Your task to perform on an android device: What's on my calendar tomorrow? Image 0: 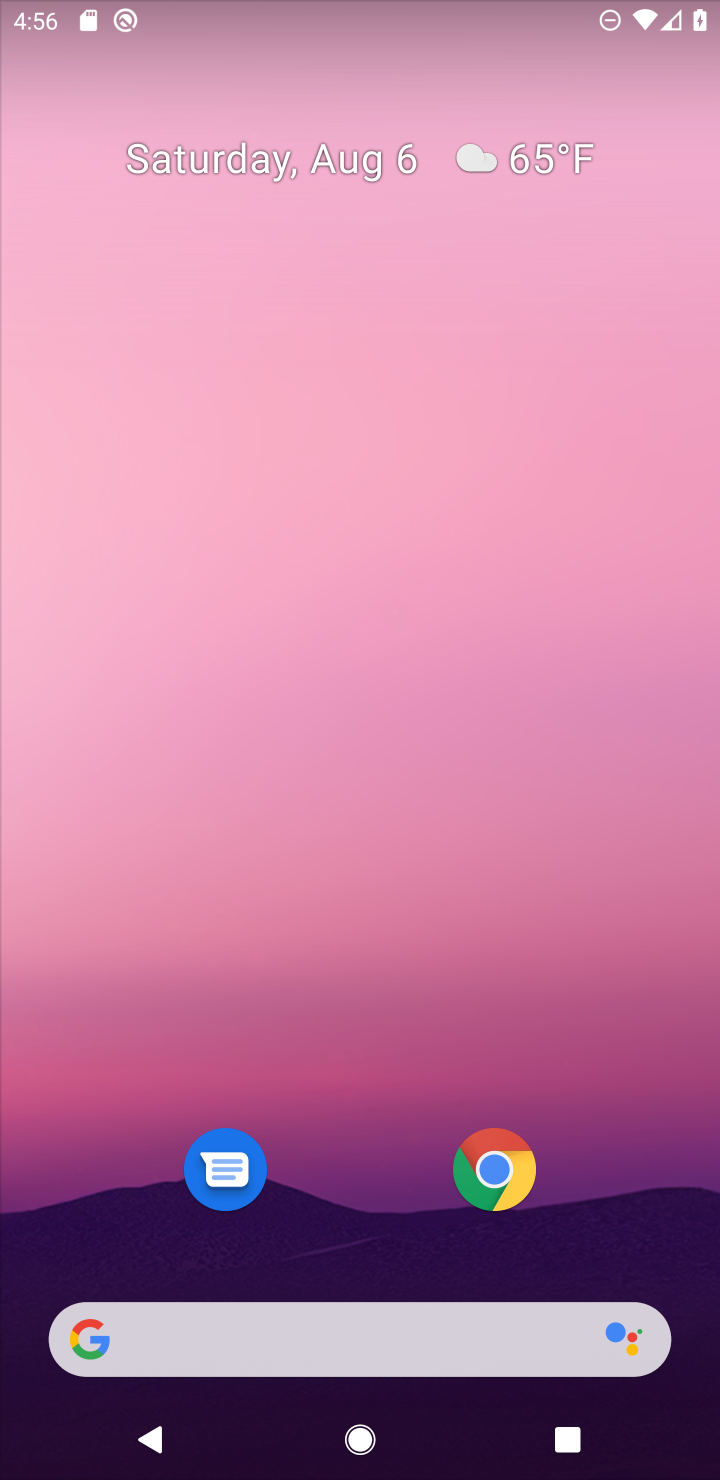
Step 0: drag from (262, 69) to (311, 4)
Your task to perform on an android device: What's on my calendar tomorrow? Image 1: 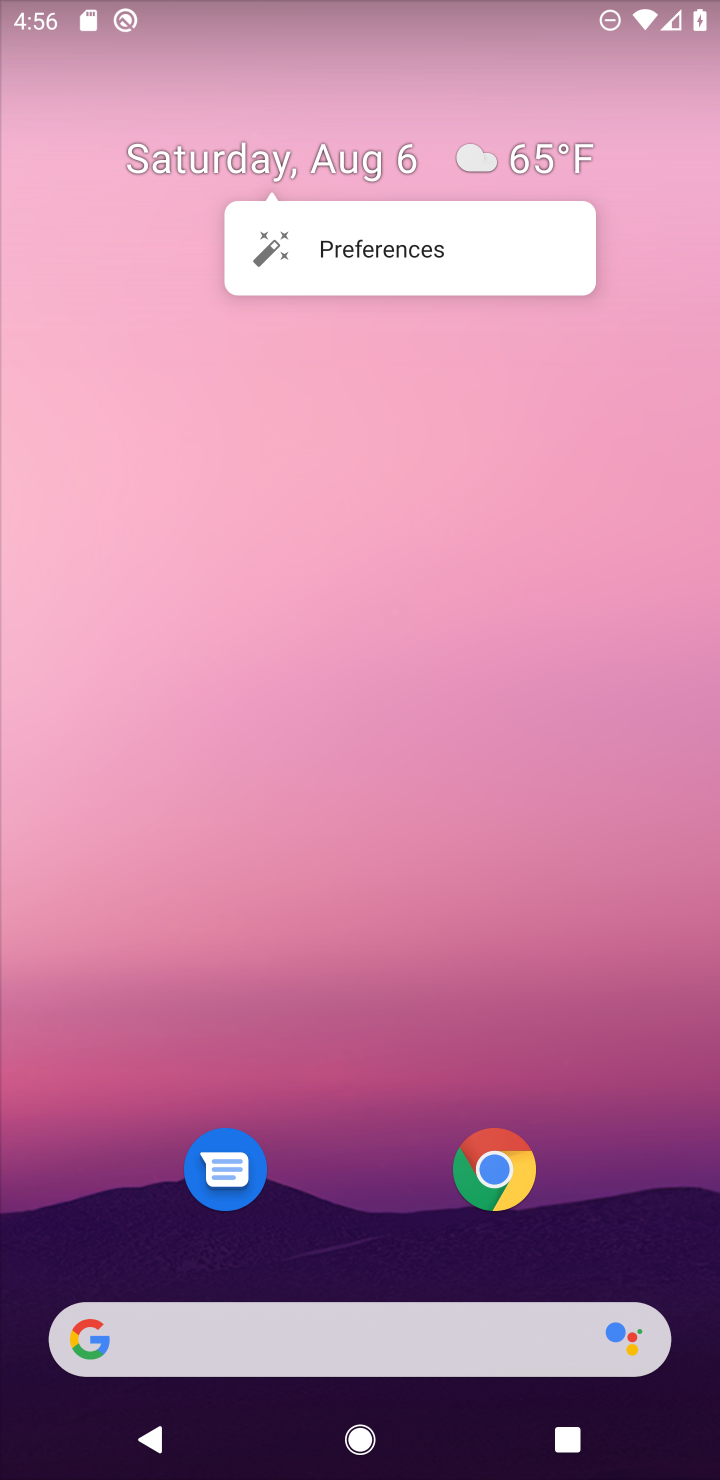
Step 1: click (303, 504)
Your task to perform on an android device: What's on my calendar tomorrow? Image 2: 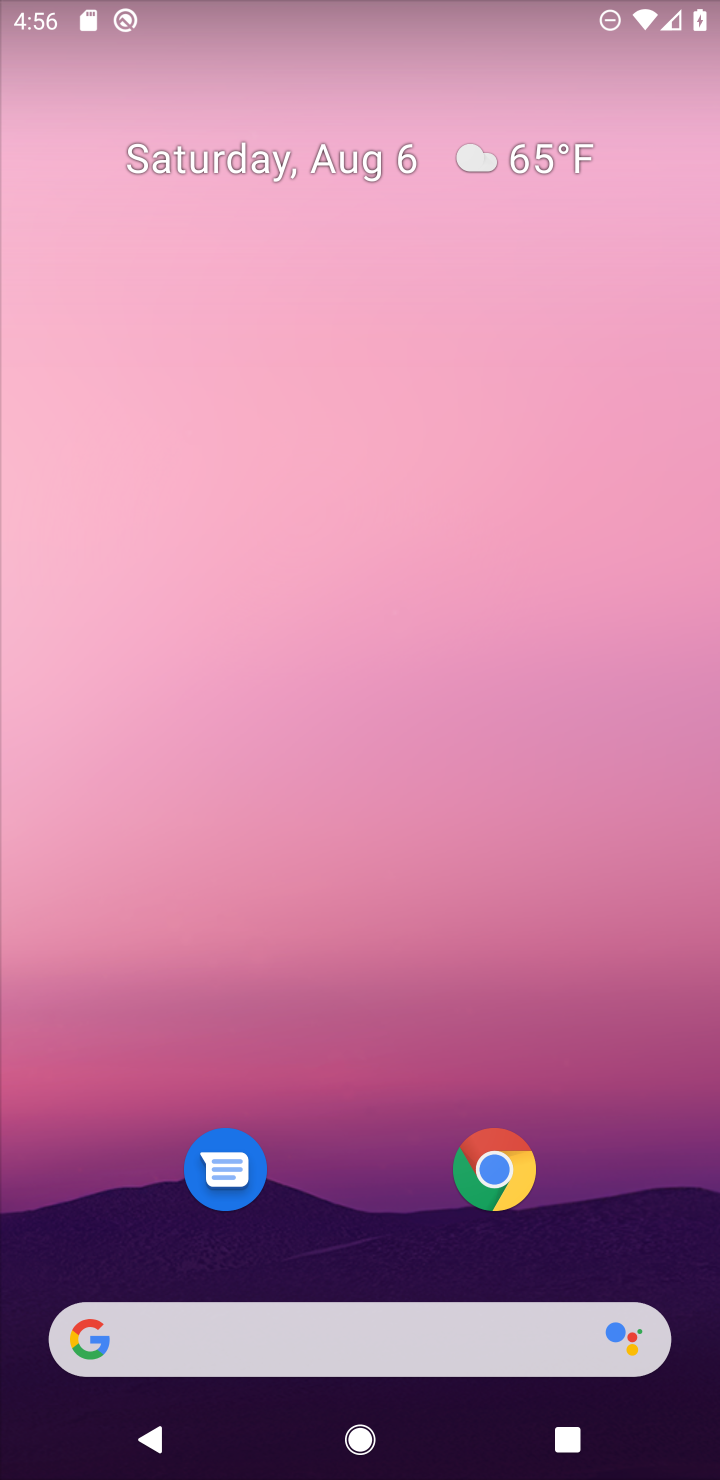
Step 2: click (406, 303)
Your task to perform on an android device: What's on my calendar tomorrow? Image 3: 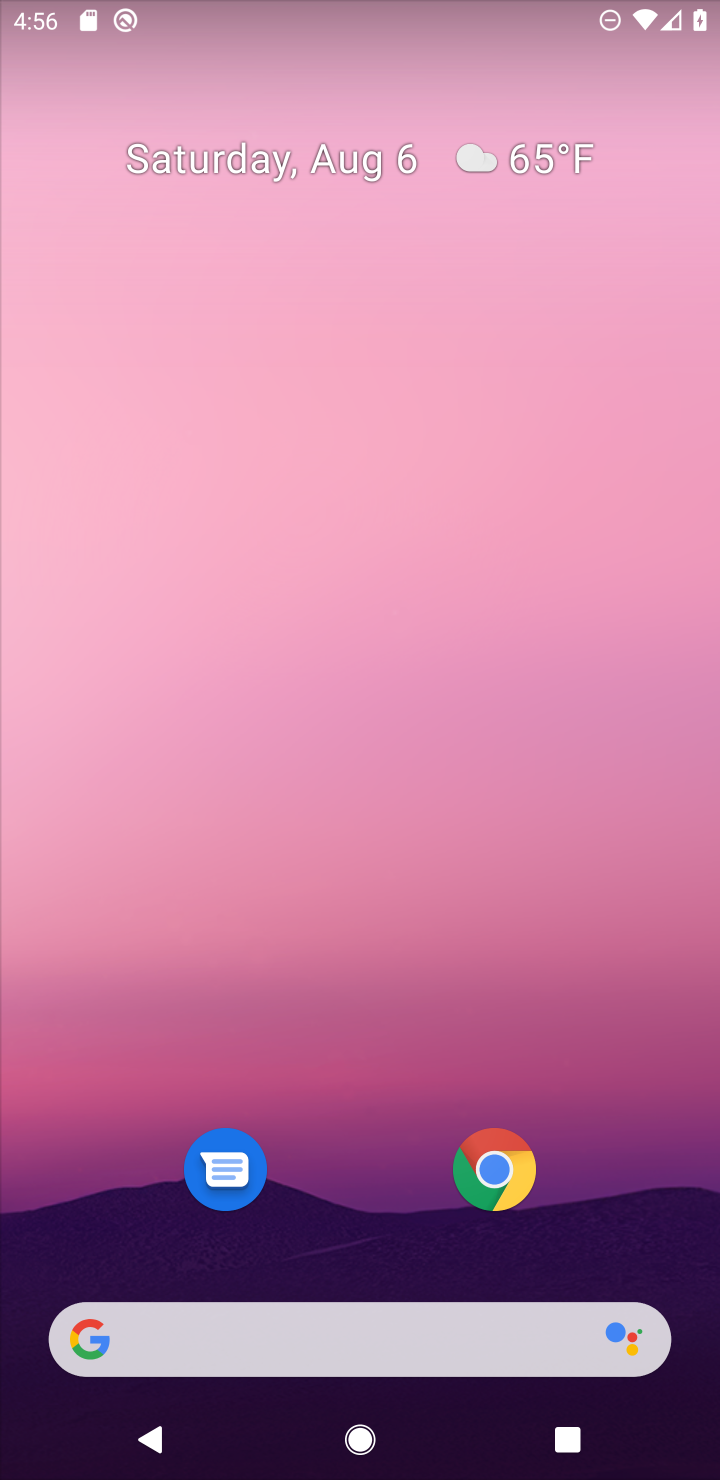
Step 3: click (344, 65)
Your task to perform on an android device: What's on my calendar tomorrow? Image 4: 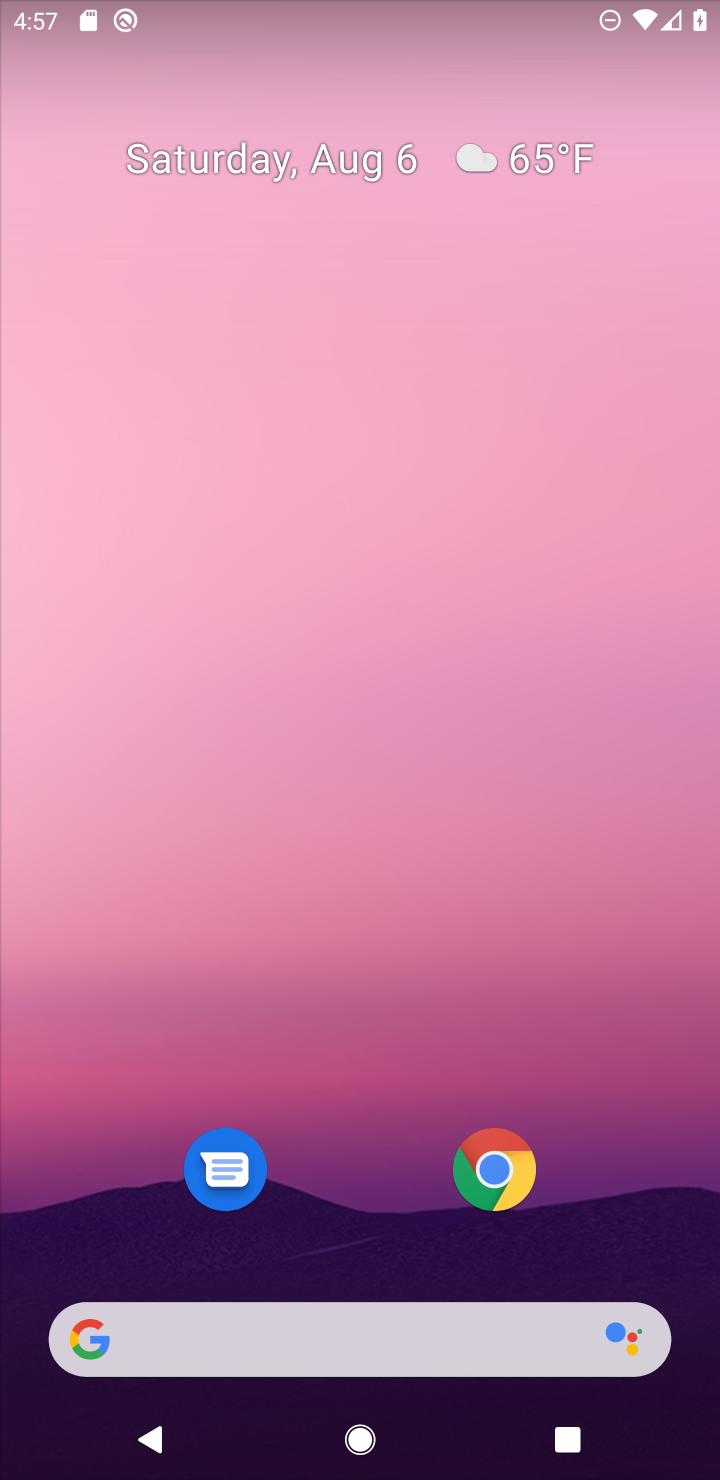
Step 4: click (339, 1010)
Your task to perform on an android device: What's on my calendar tomorrow? Image 5: 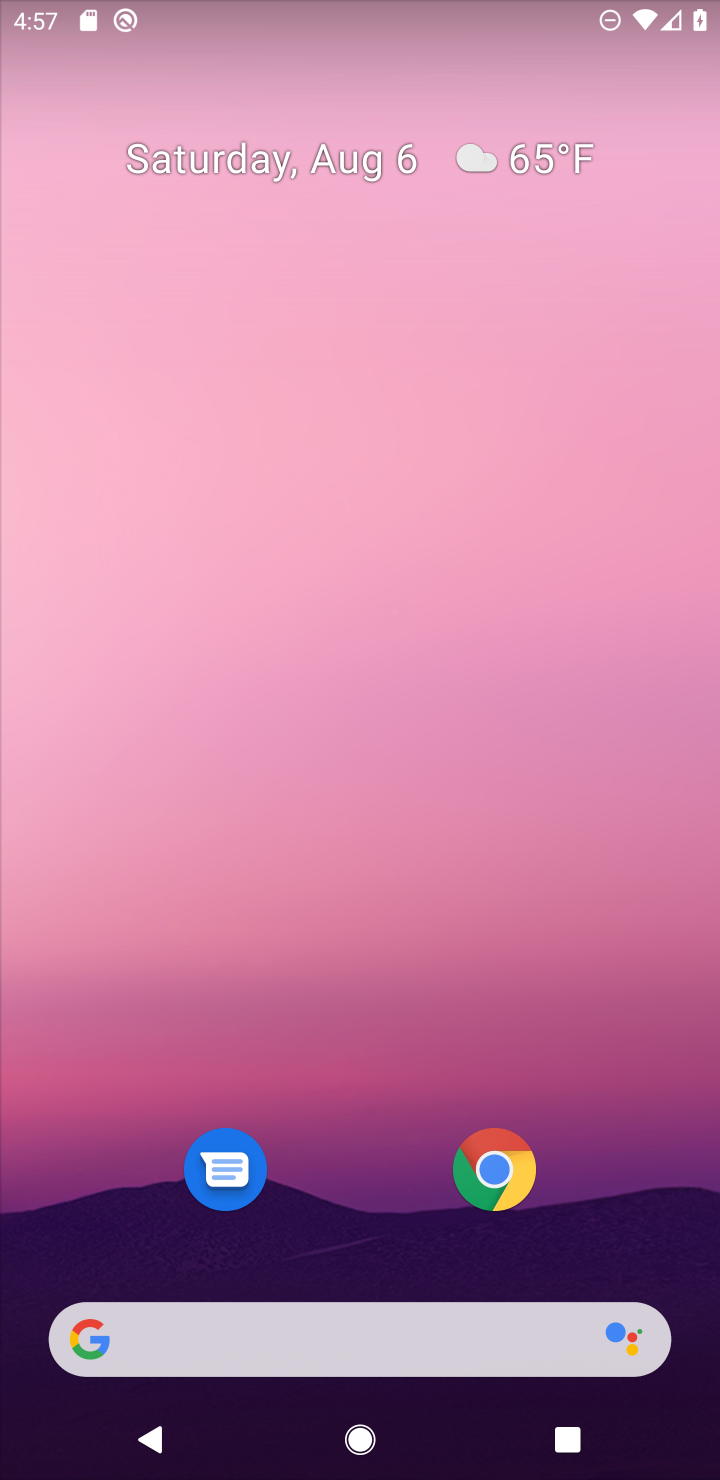
Step 5: drag from (265, 149) to (265, 40)
Your task to perform on an android device: What's on my calendar tomorrow? Image 6: 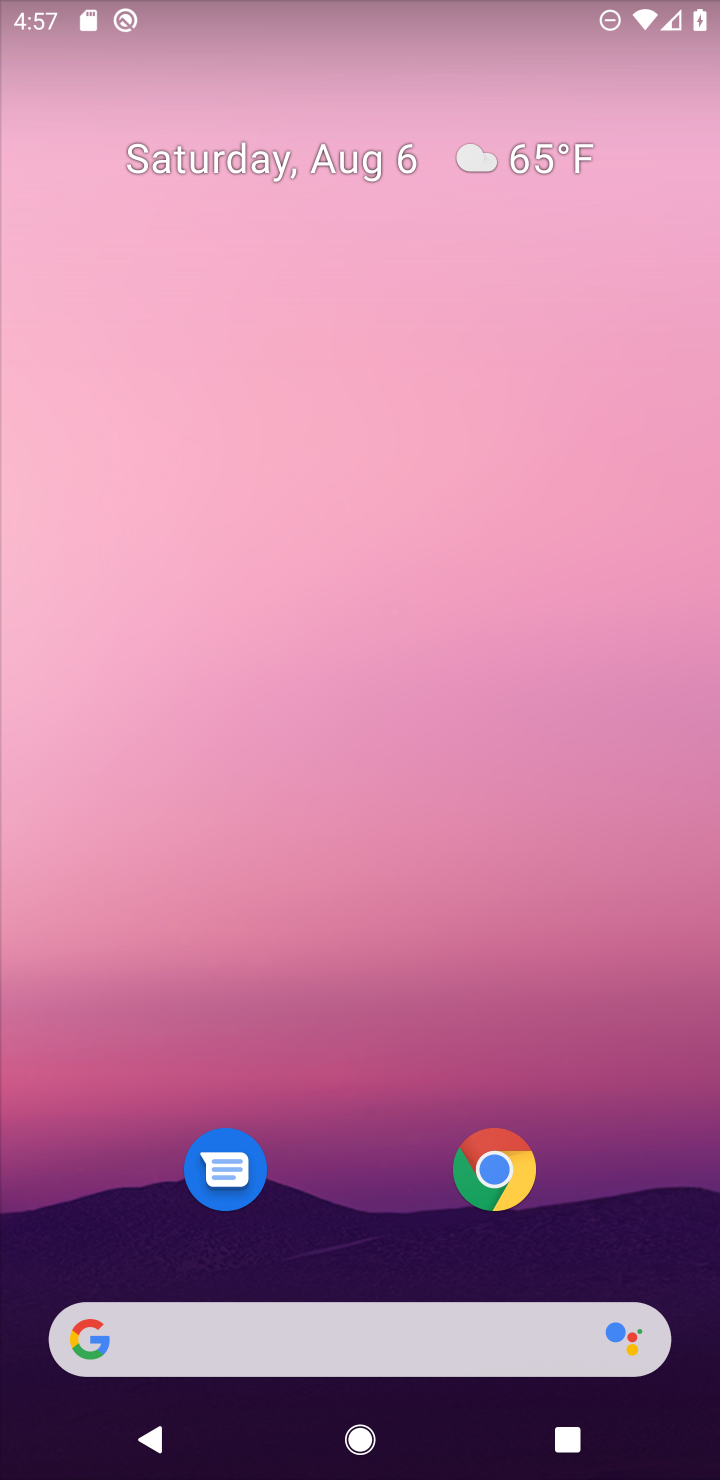
Step 6: drag from (321, 671) to (320, 509)
Your task to perform on an android device: What's on my calendar tomorrow? Image 7: 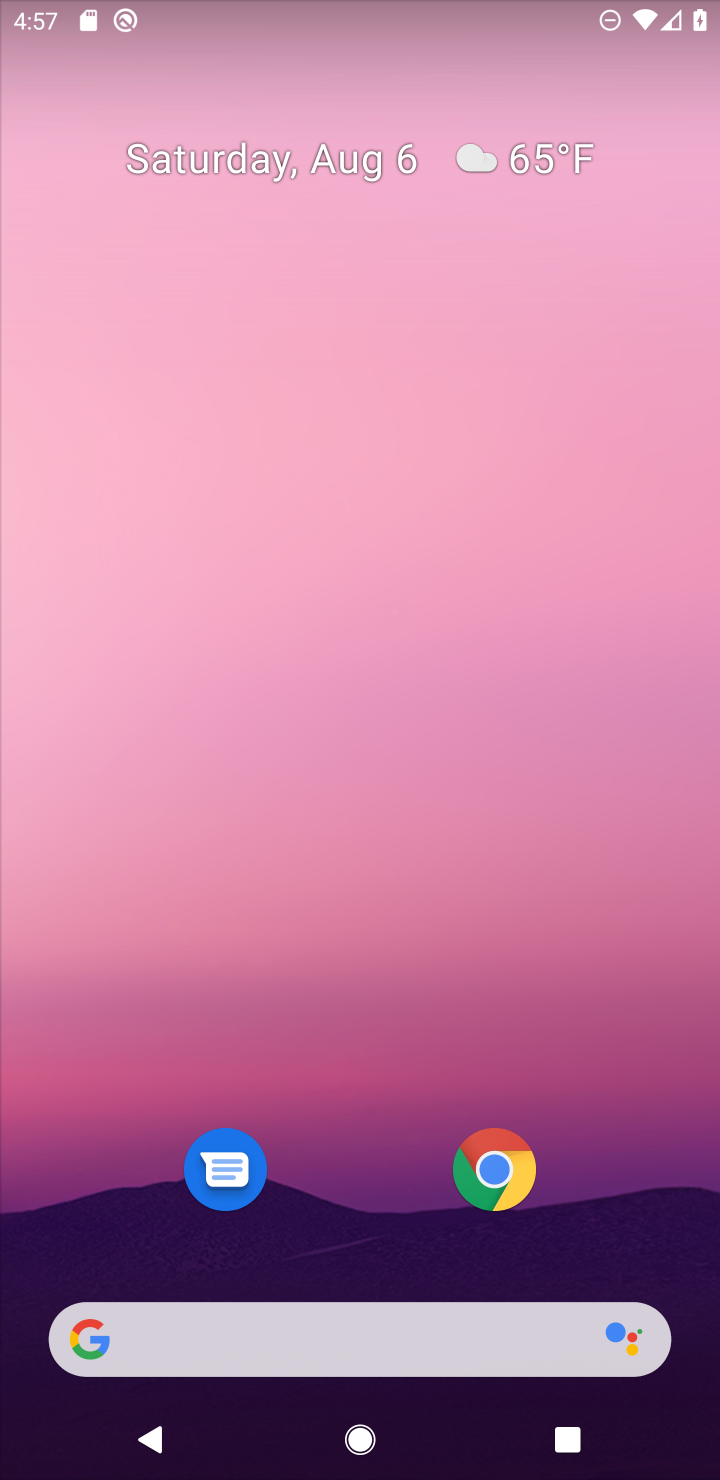
Step 7: drag from (374, 1238) to (346, 351)
Your task to perform on an android device: What's on my calendar tomorrow? Image 8: 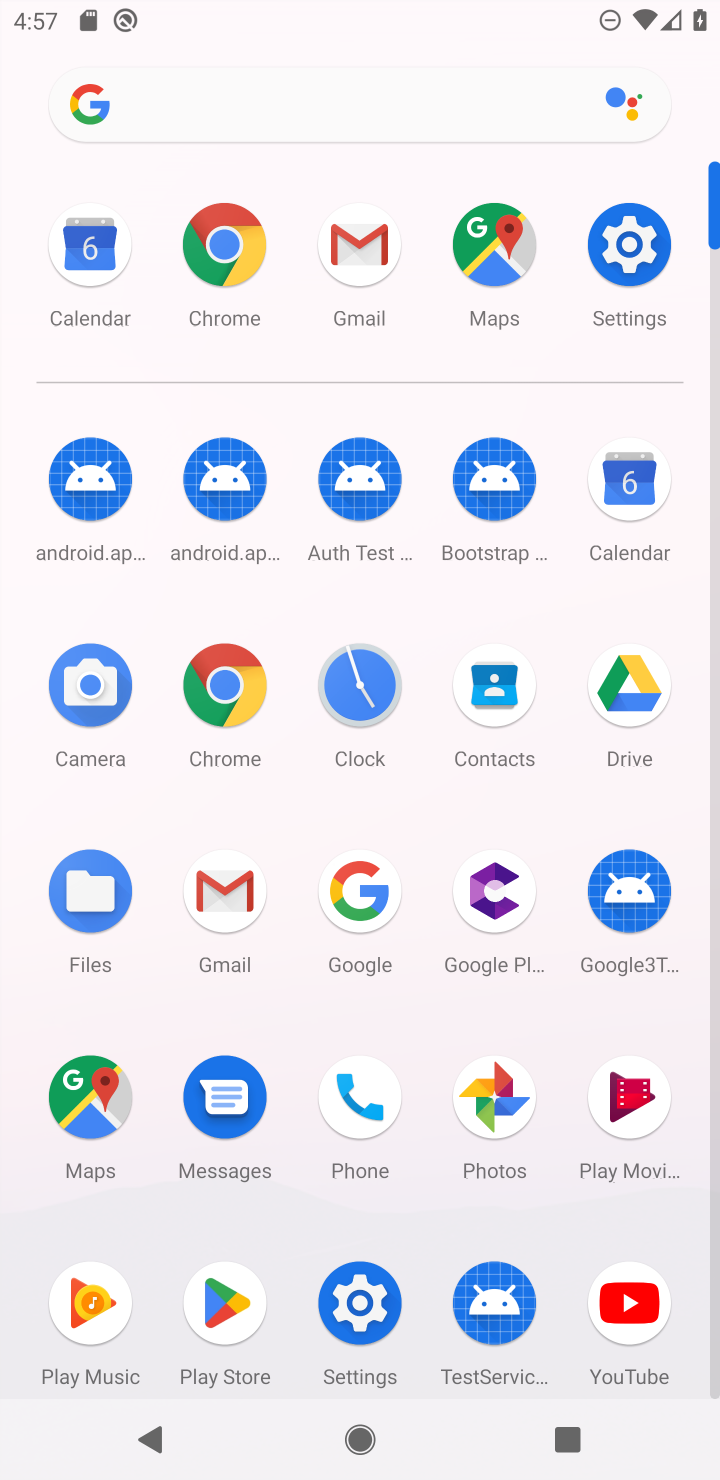
Step 8: click (63, 256)
Your task to perform on an android device: What's on my calendar tomorrow? Image 9: 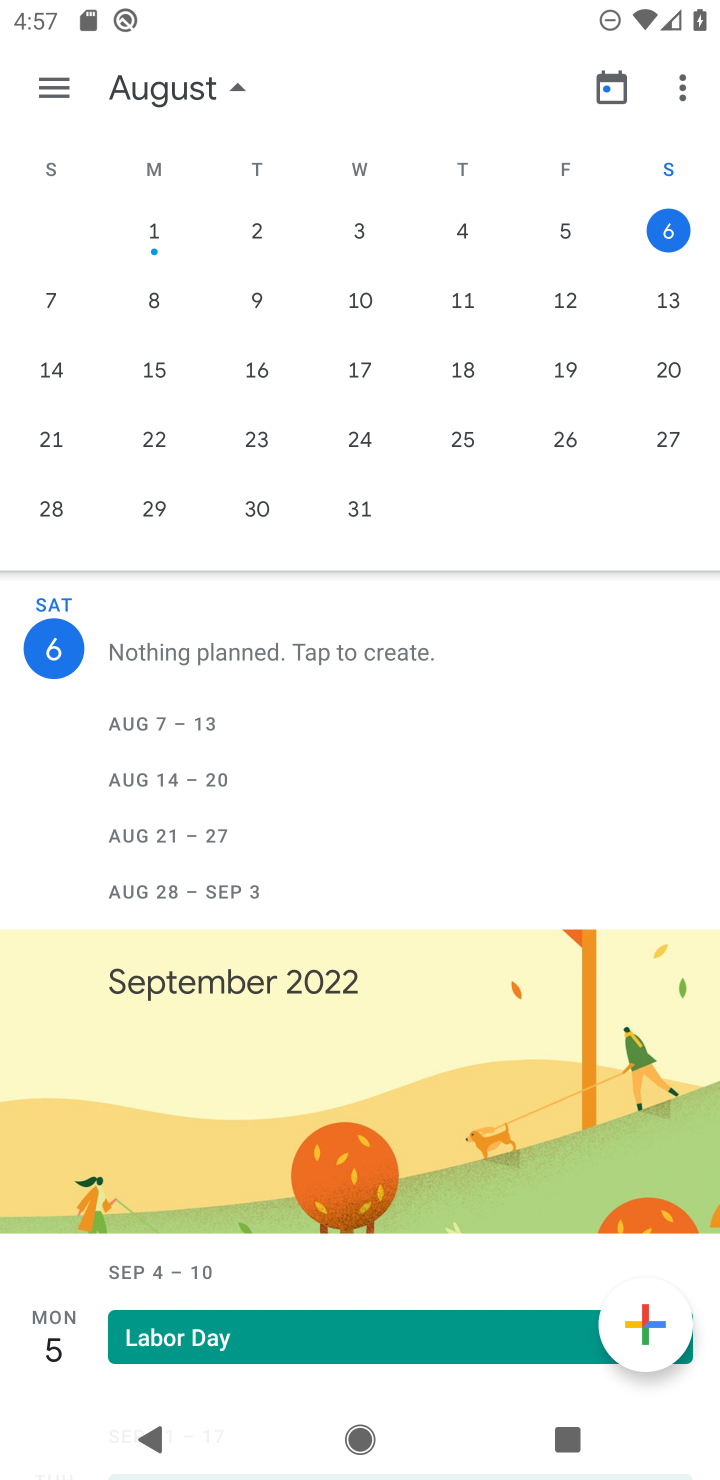
Step 9: click (61, 305)
Your task to perform on an android device: What's on my calendar tomorrow? Image 10: 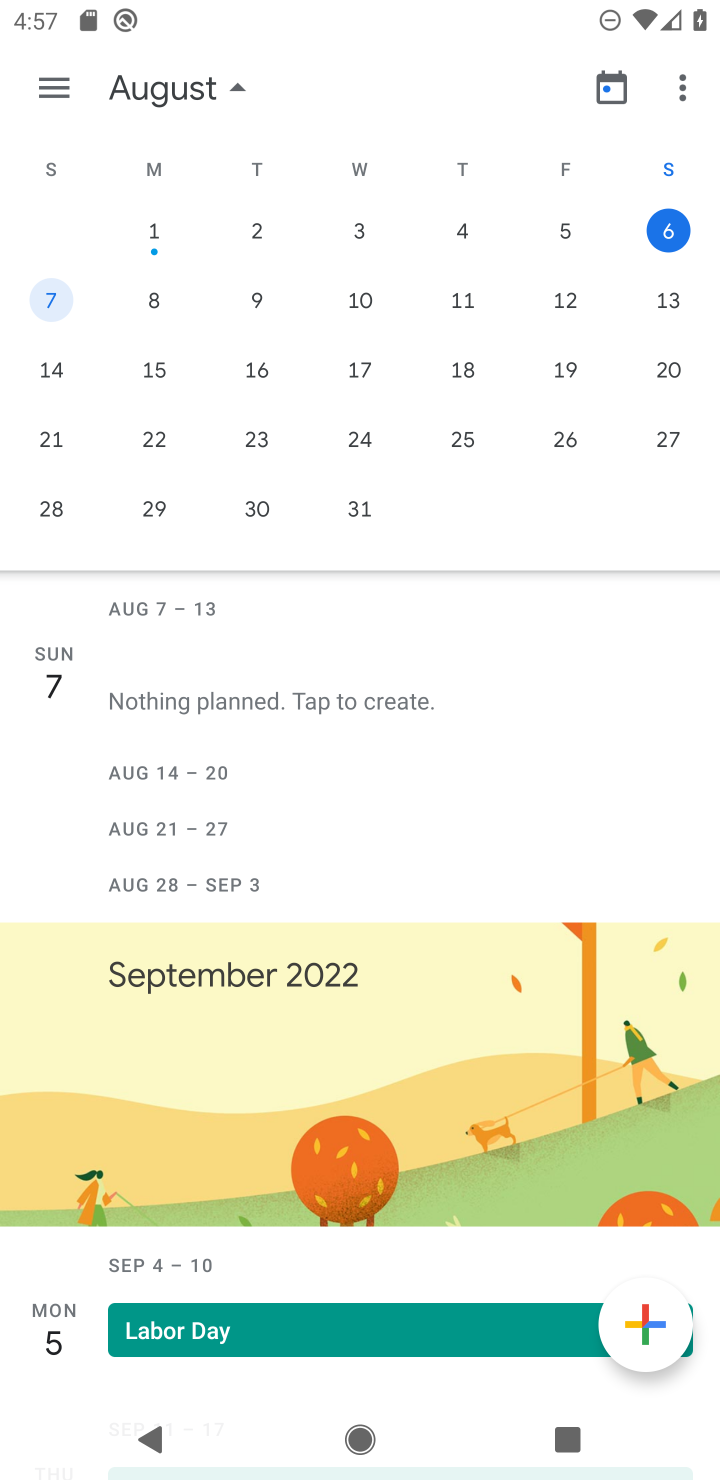
Step 10: task complete